Your task to perform on an android device: find which apps use the phone's location Image 0: 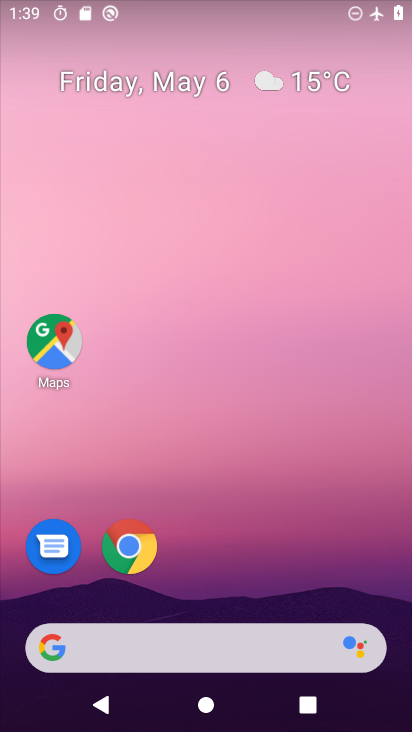
Step 0: drag from (247, 522) to (259, 20)
Your task to perform on an android device: find which apps use the phone's location Image 1: 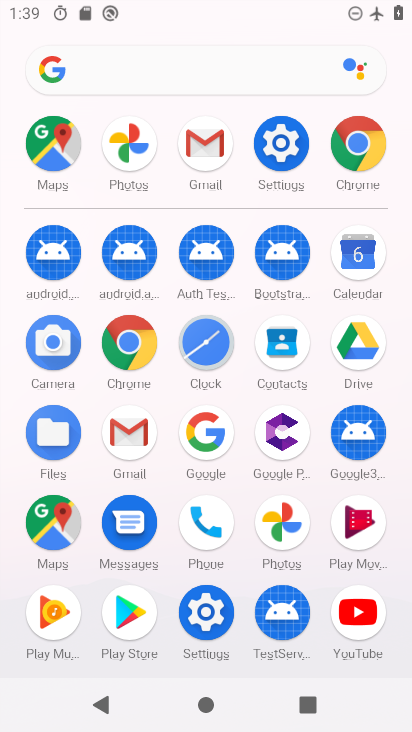
Step 1: click (288, 151)
Your task to perform on an android device: find which apps use the phone's location Image 2: 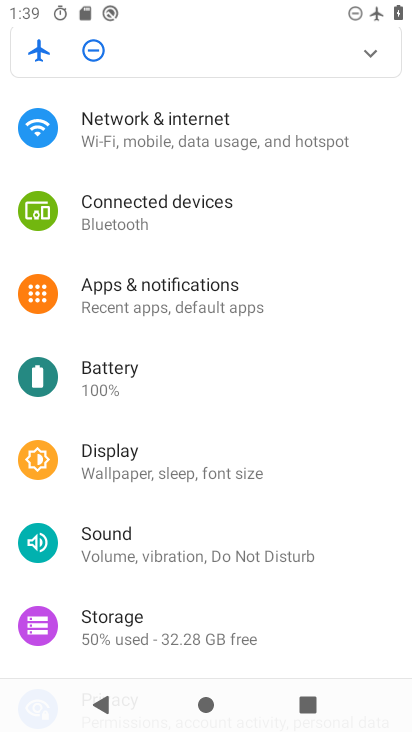
Step 2: drag from (250, 558) to (276, 304)
Your task to perform on an android device: find which apps use the phone's location Image 3: 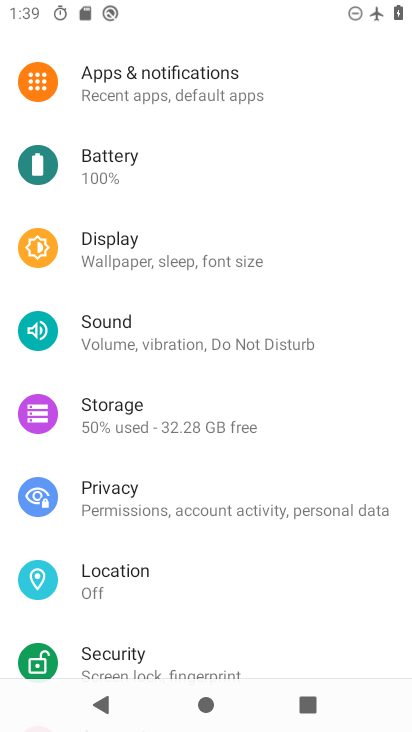
Step 3: click (155, 587)
Your task to perform on an android device: find which apps use the phone's location Image 4: 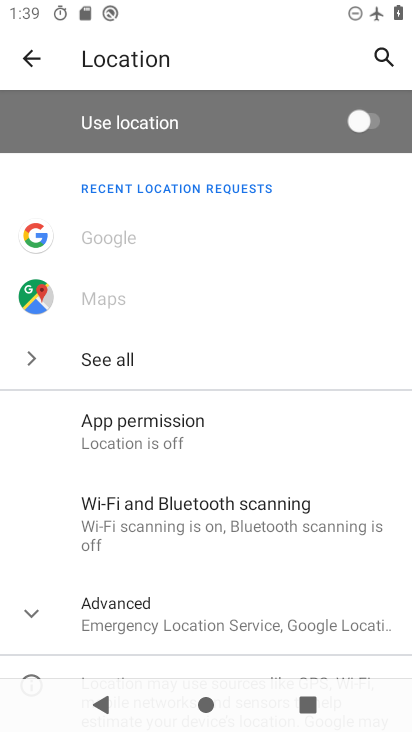
Step 4: click (174, 427)
Your task to perform on an android device: find which apps use the phone's location Image 5: 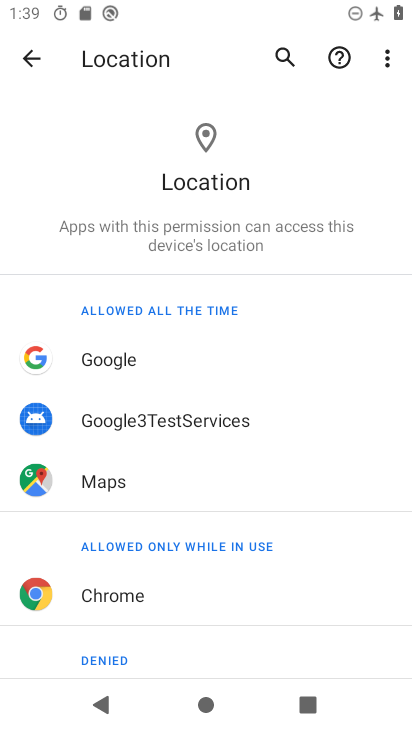
Step 5: task complete